Your task to perform on an android device: Do I have any events today? Image 0: 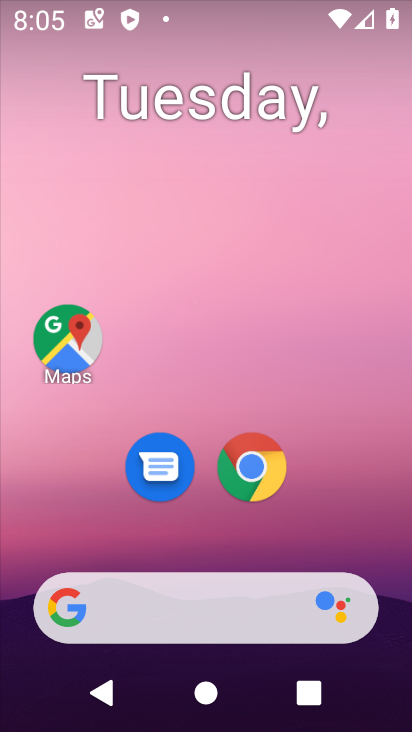
Step 0: drag from (390, 568) to (319, 89)
Your task to perform on an android device: Do I have any events today? Image 1: 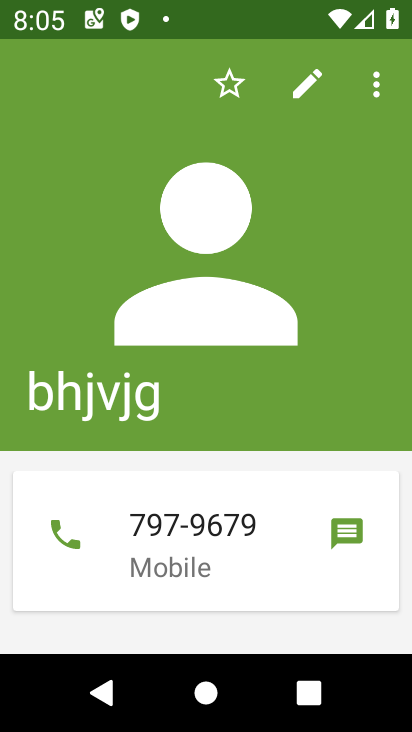
Step 1: press home button
Your task to perform on an android device: Do I have any events today? Image 2: 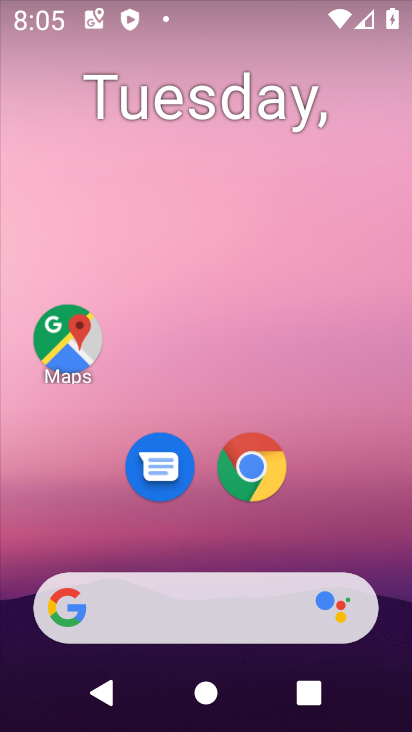
Step 2: drag from (355, 537) to (258, 81)
Your task to perform on an android device: Do I have any events today? Image 3: 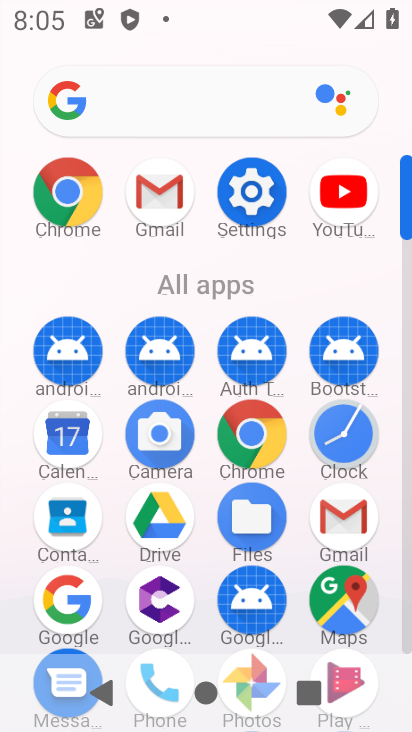
Step 3: click (90, 441)
Your task to perform on an android device: Do I have any events today? Image 4: 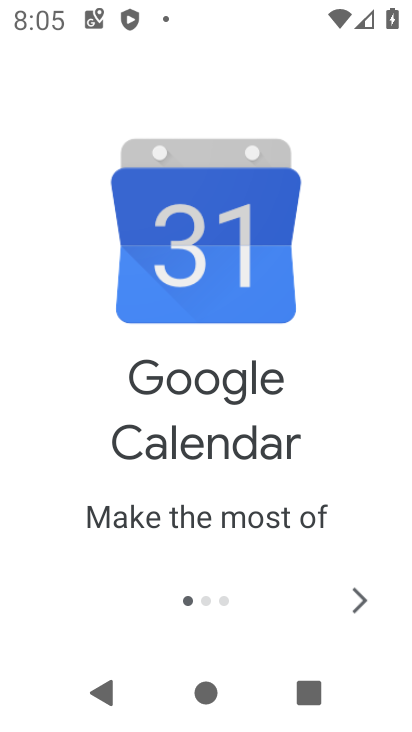
Step 4: click (364, 594)
Your task to perform on an android device: Do I have any events today? Image 5: 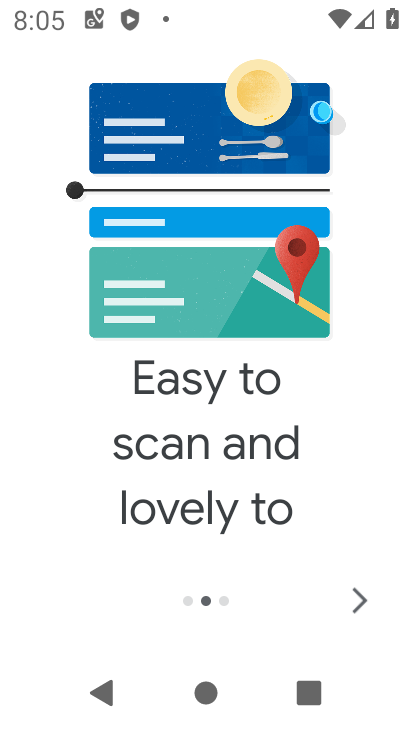
Step 5: click (364, 594)
Your task to perform on an android device: Do I have any events today? Image 6: 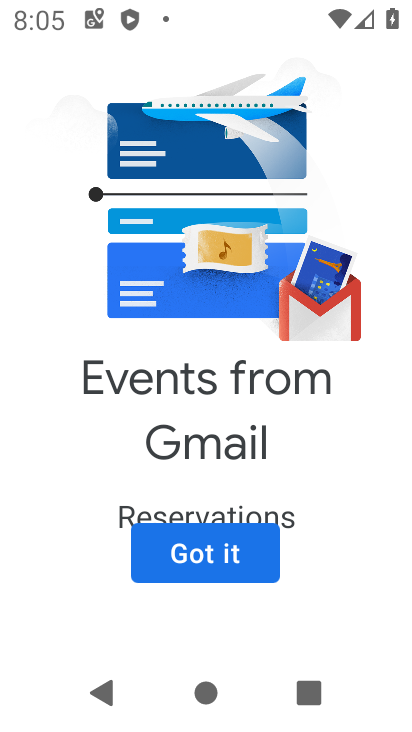
Step 6: click (364, 594)
Your task to perform on an android device: Do I have any events today? Image 7: 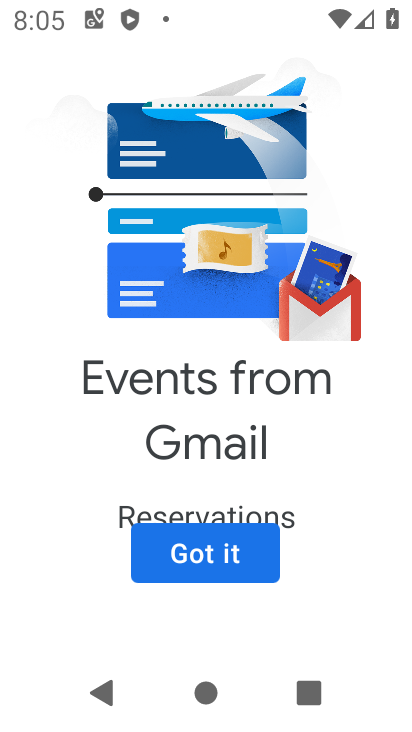
Step 7: click (249, 560)
Your task to perform on an android device: Do I have any events today? Image 8: 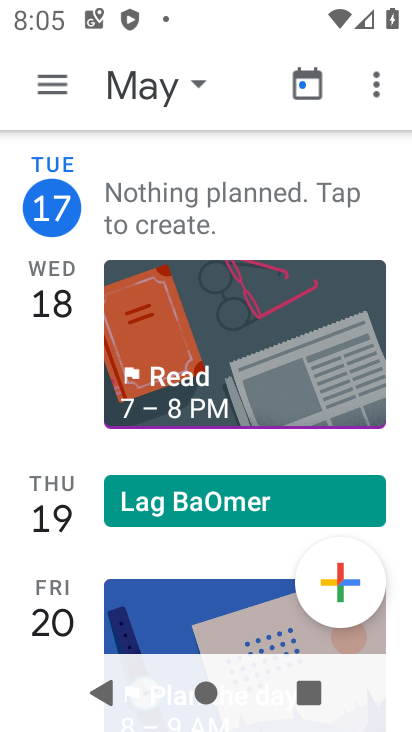
Step 8: click (55, 80)
Your task to perform on an android device: Do I have any events today? Image 9: 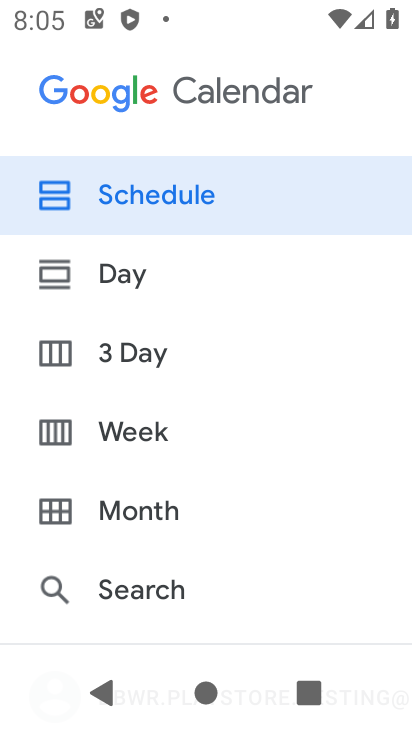
Step 9: drag from (229, 593) to (221, 127)
Your task to perform on an android device: Do I have any events today? Image 10: 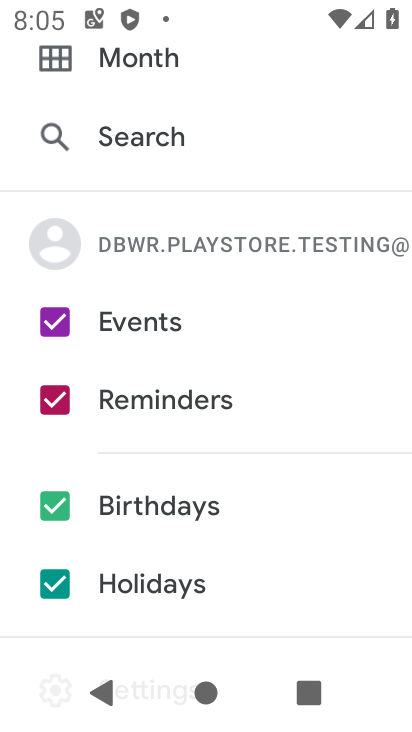
Step 10: click (53, 584)
Your task to perform on an android device: Do I have any events today? Image 11: 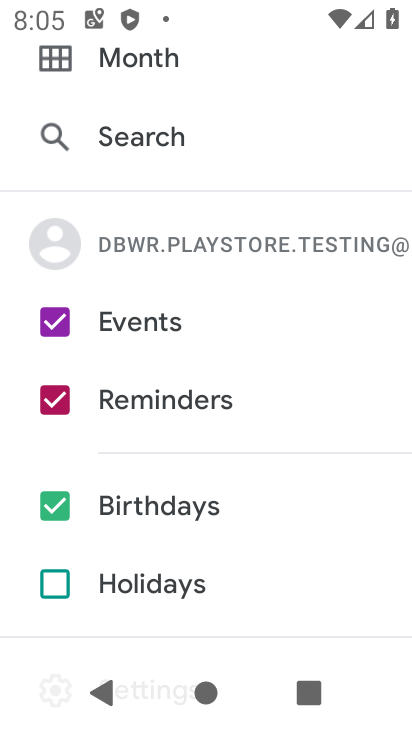
Step 11: click (49, 501)
Your task to perform on an android device: Do I have any events today? Image 12: 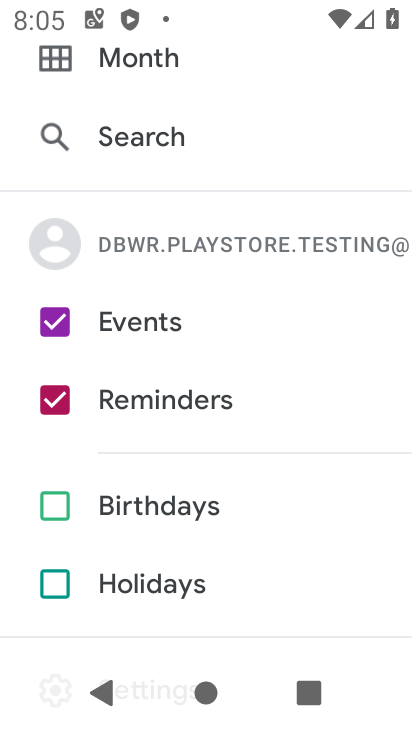
Step 12: click (57, 402)
Your task to perform on an android device: Do I have any events today? Image 13: 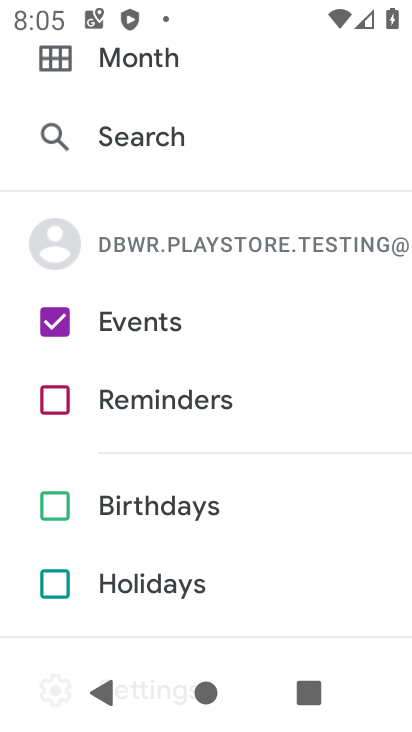
Step 13: drag from (279, 225) to (263, 544)
Your task to perform on an android device: Do I have any events today? Image 14: 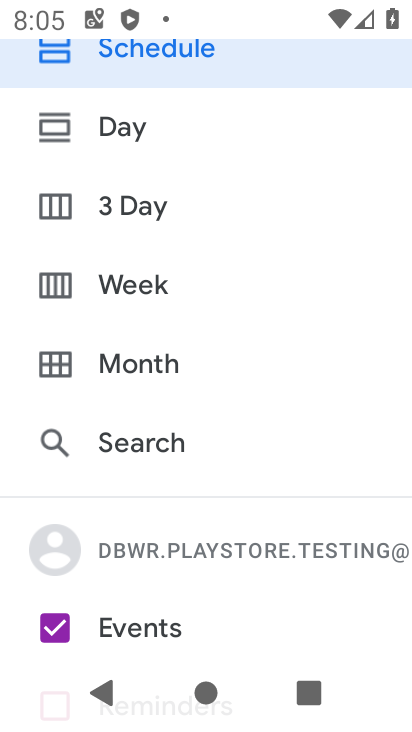
Step 14: click (173, 76)
Your task to perform on an android device: Do I have any events today? Image 15: 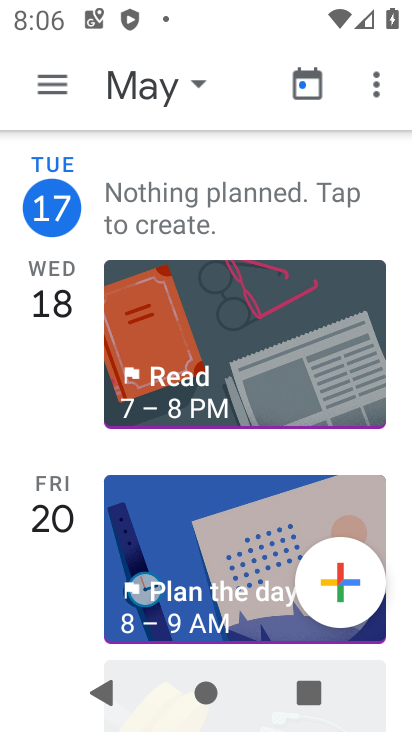
Step 15: task complete